Your task to perform on an android device: allow notifications from all sites in the chrome app Image 0: 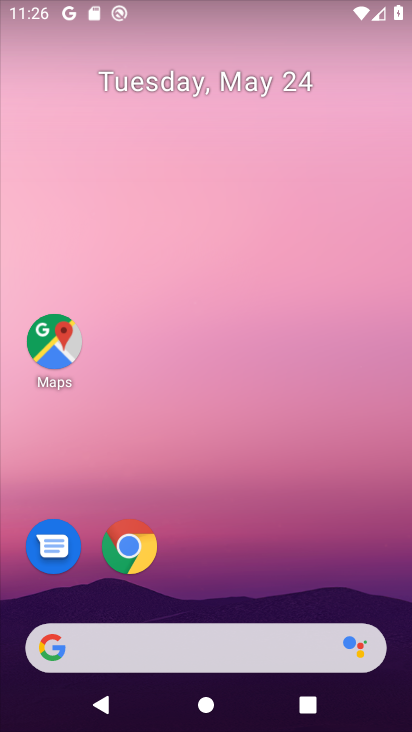
Step 0: click (132, 559)
Your task to perform on an android device: allow notifications from all sites in the chrome app Image 1: 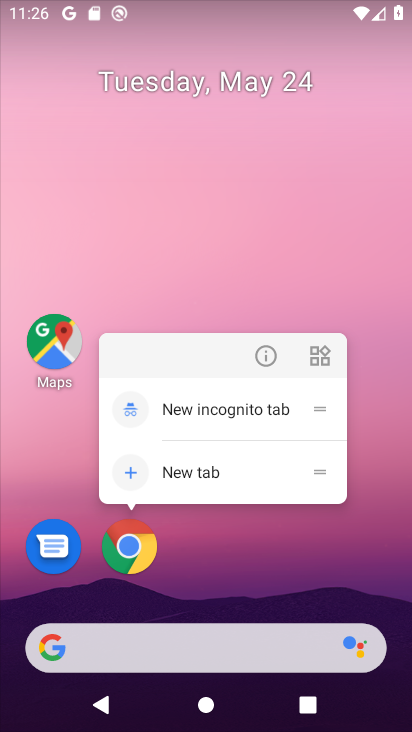
Step 1: click (123, 564)
Your task to perform on an android device: allow notifications from all sites in the chrome app Image 2: 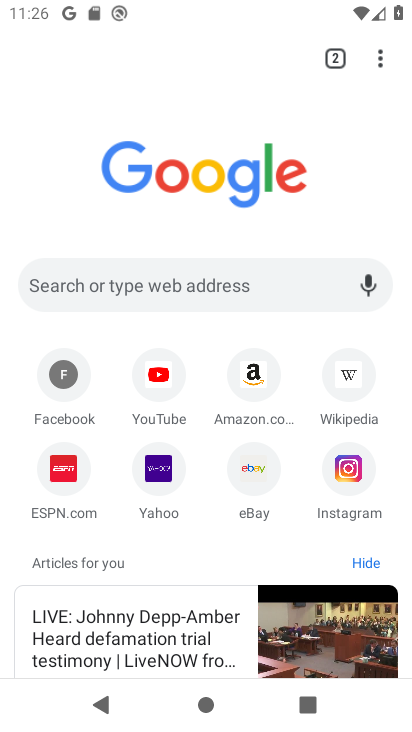
Step 2: click (382, 54)
Your task to perform on an android device: allow notifications from all sites in the chrome app Image 3: 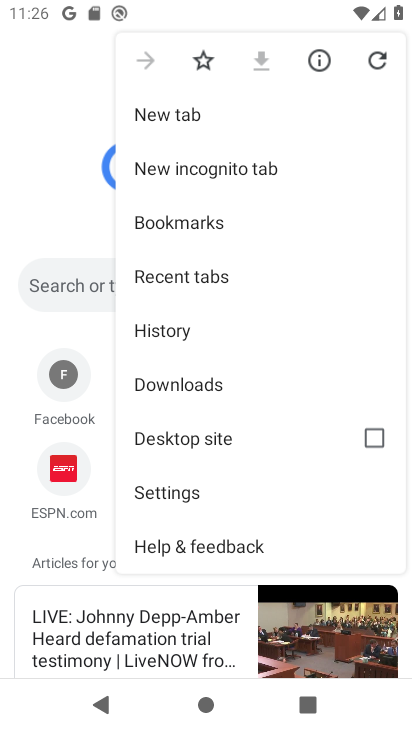
Step 3: click (183, 504)
Your task to perform on an android device: allow notifications from all sites in the chrome app Image 4: 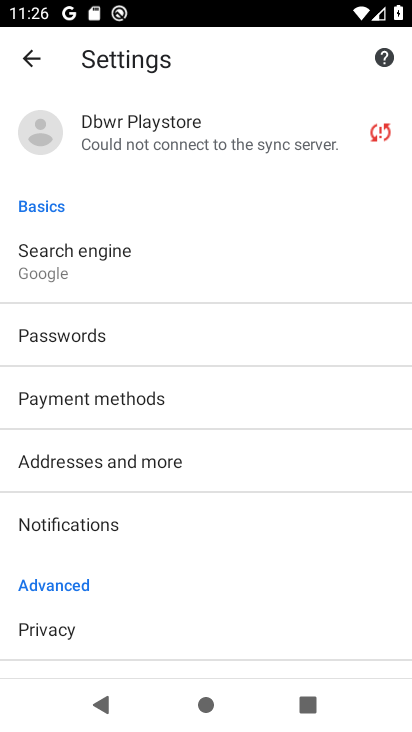
Step 4: click (109, 542)
Your task to perform on an android device: allow notifications from all sites in the chrome app Image 5: 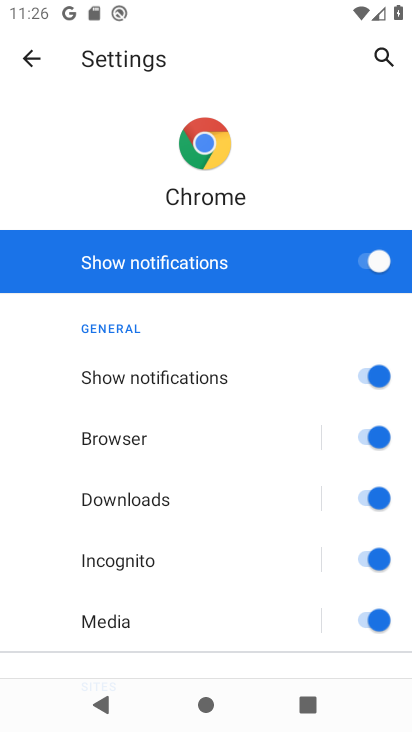
Step 5: task complete